Your task to perform on an android device: stop showing notifications on the lock screen Image 0: 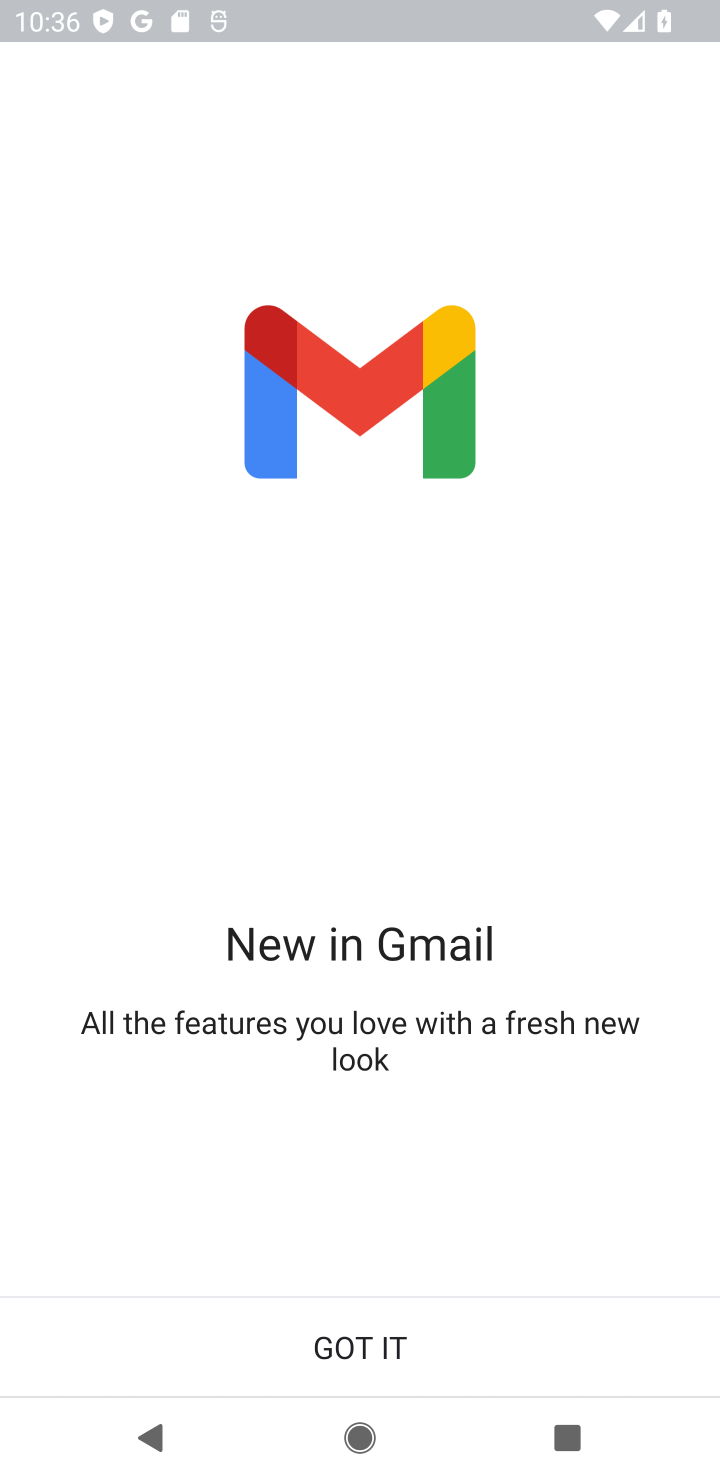
Step 0: press home button
Your task to perform on an android device: stop showing notifications on the lock screen Image 1: 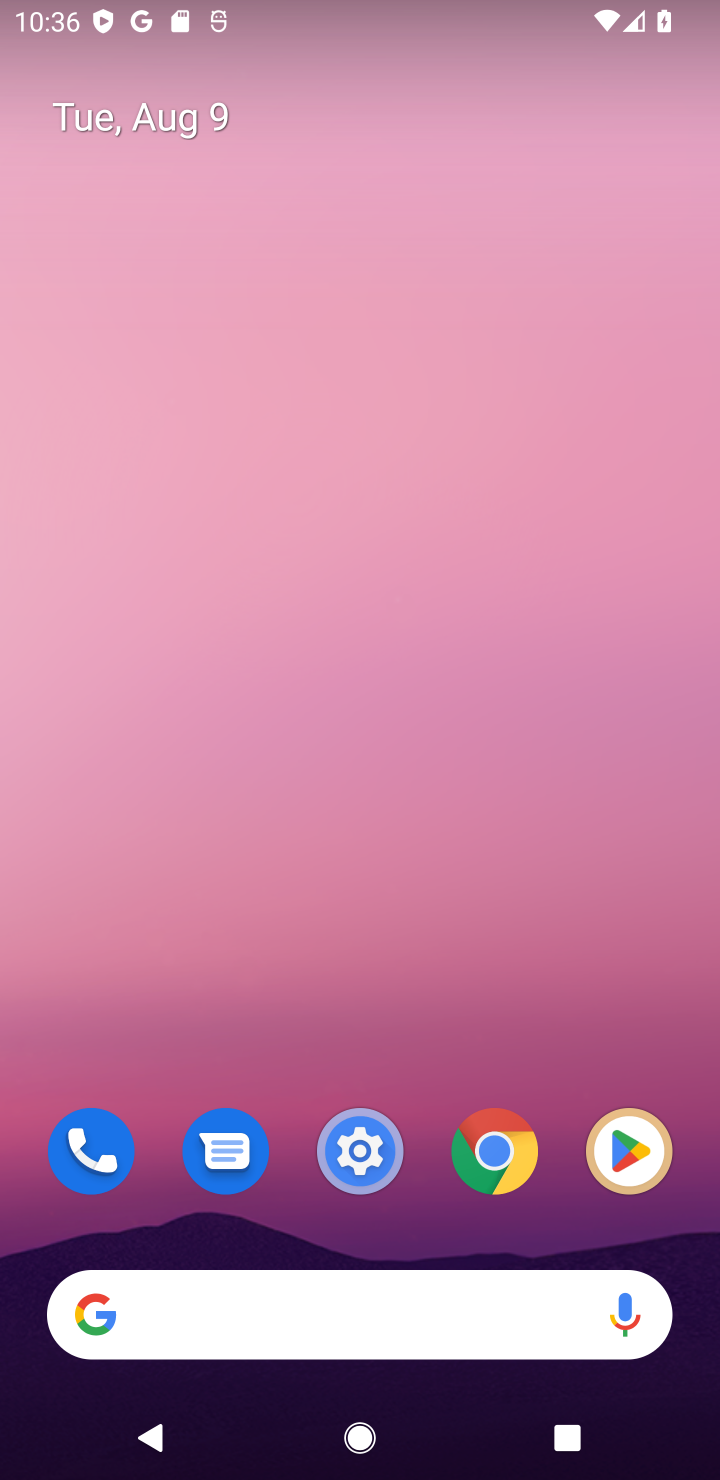
Step 1: click (363, 1162)
Your task to perform on an android device: stop showing notifications on the lock screen Image 2: 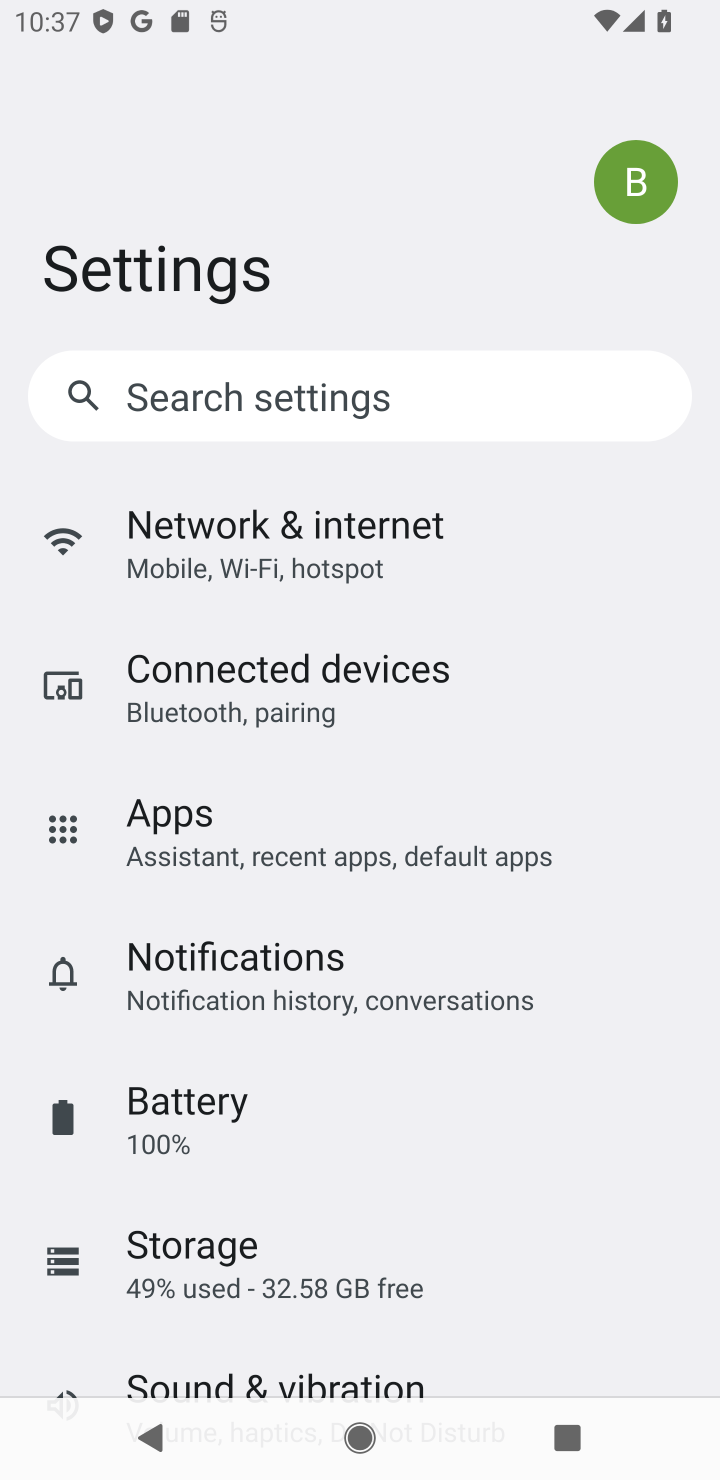
Step 2: click (368, 1002)
Your task to perform on an android device: stop showing notifications on the lock screen Image 3: 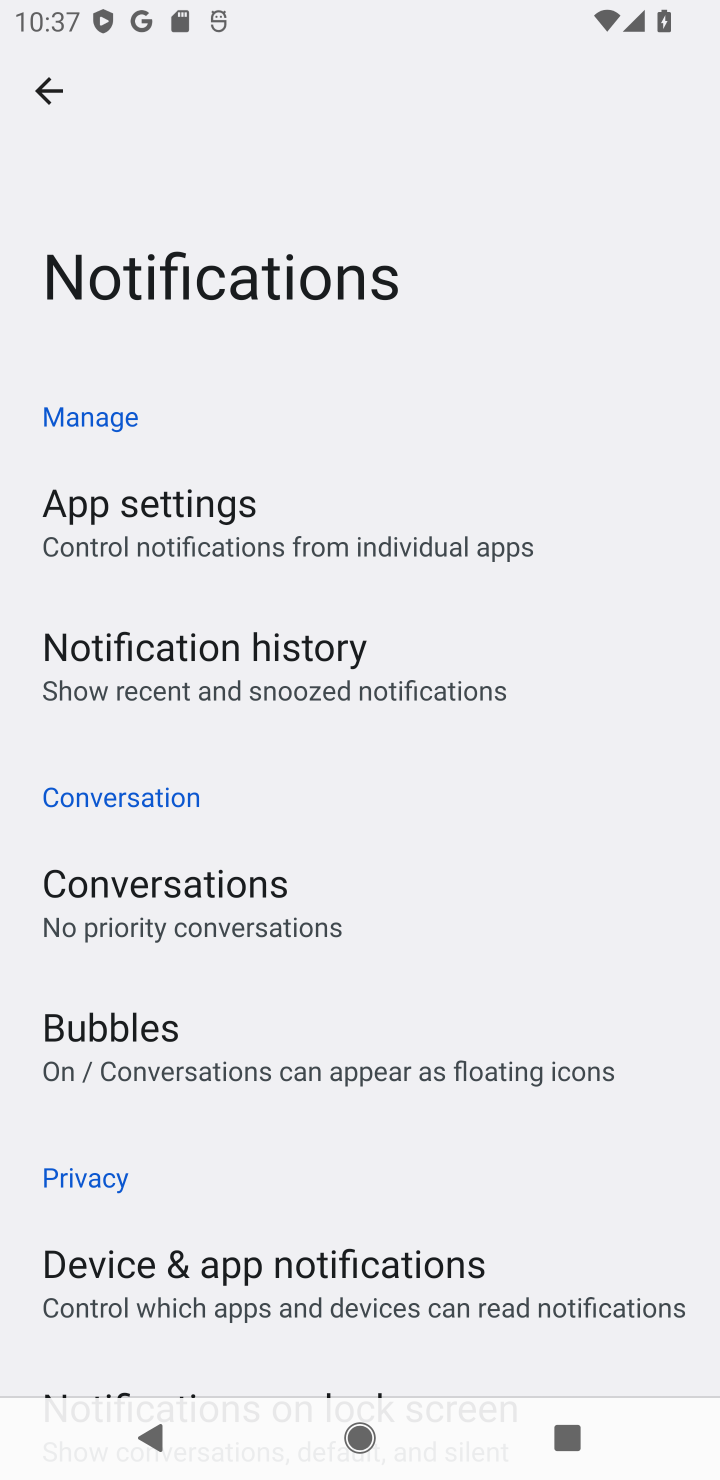
Step 3: drag from (498, 1228) to (404, 565)
Your task to perform on an android device: stop showing notifications on the lock screen Image 4: 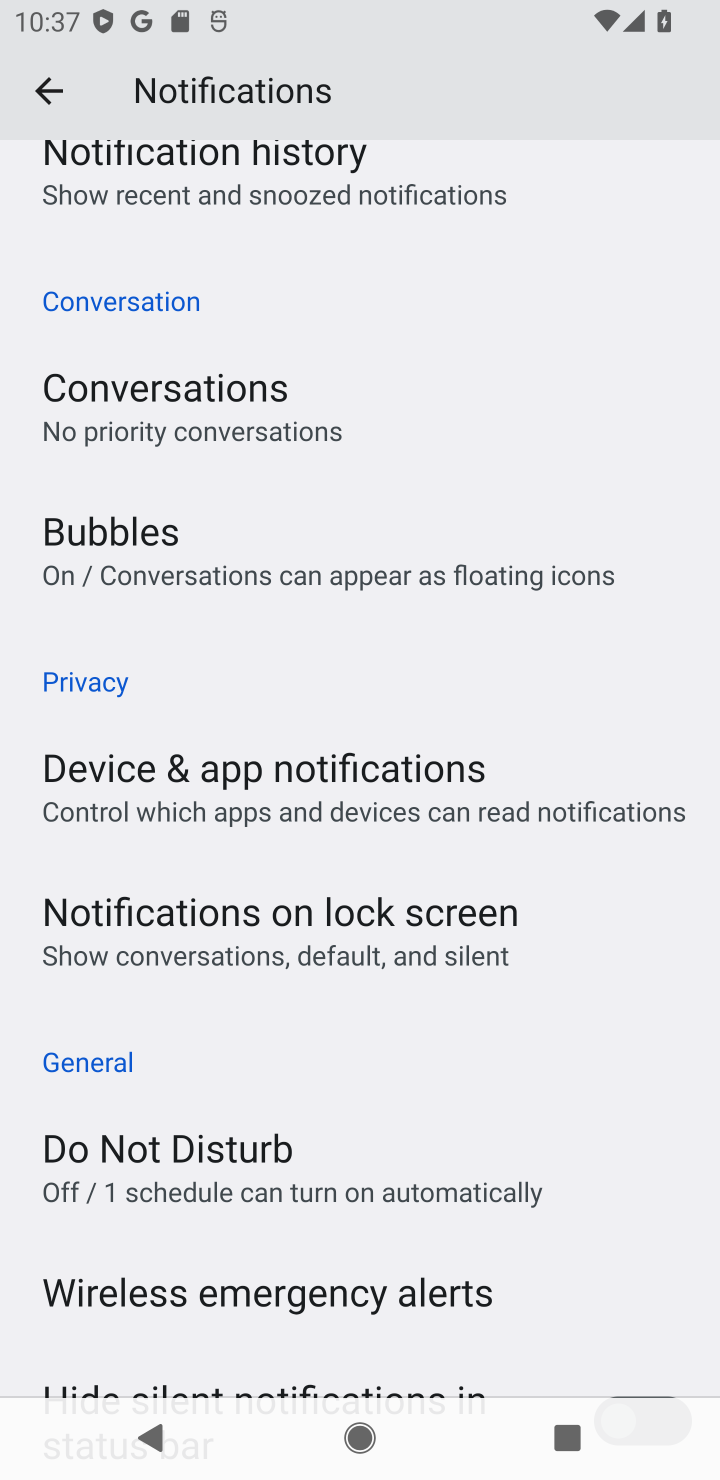
Step 4: drag from (562, 1223) to (476, 853)
Your task to perform on an android device: stop showing notifications on the lock screen Image 5: 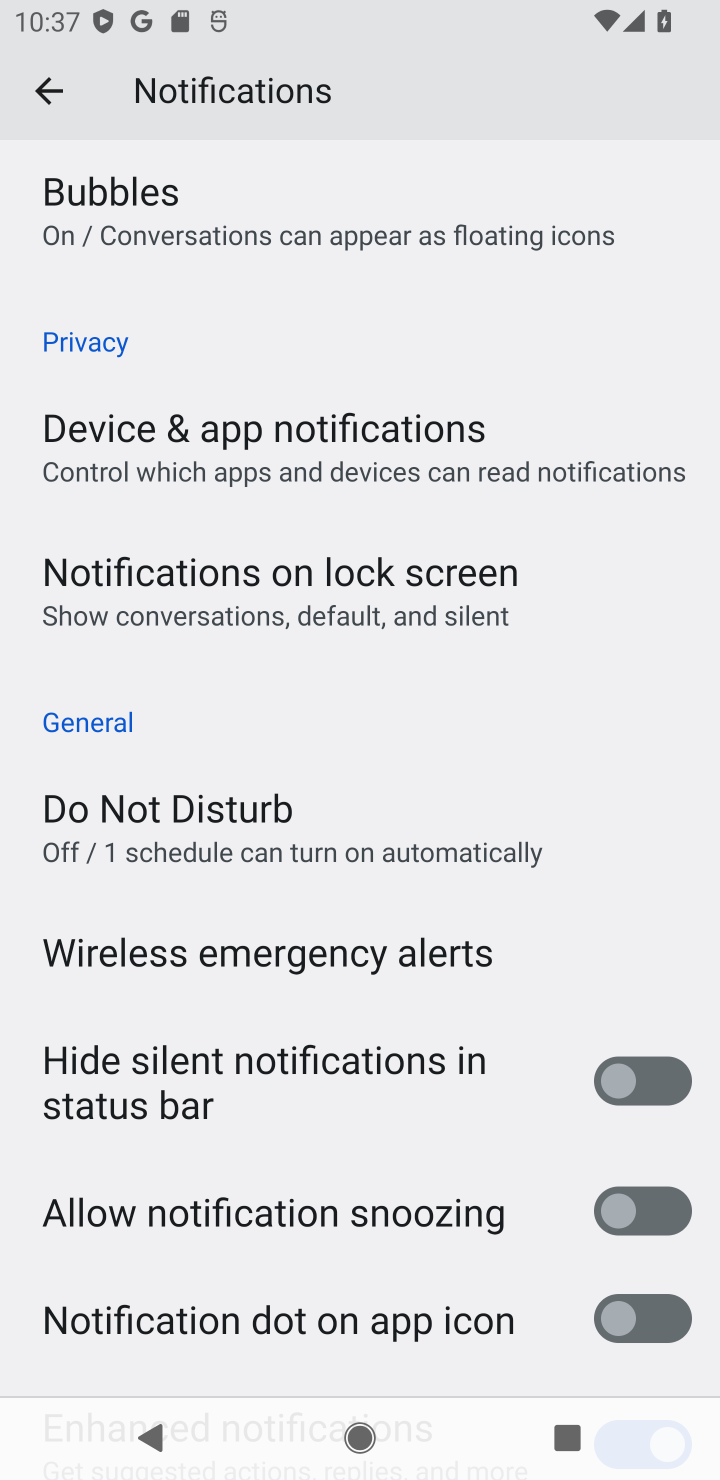
Step 5: click (297, 605)
Your task to perform on an android device: stop showing notifications on the lock screen Image 6: 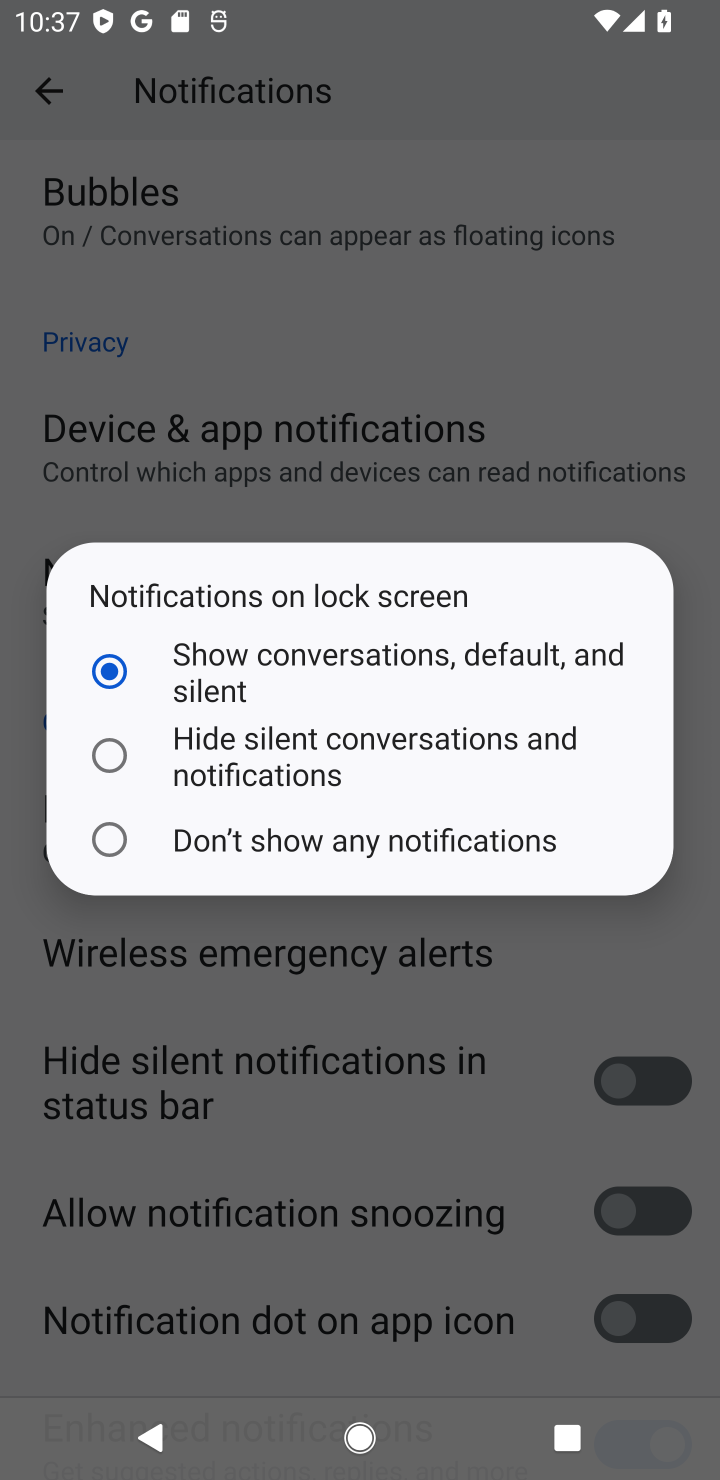
Step 6: click (434, 846)
Your task to perform on an android device: stop showing notifications on the lock screen Image 7: 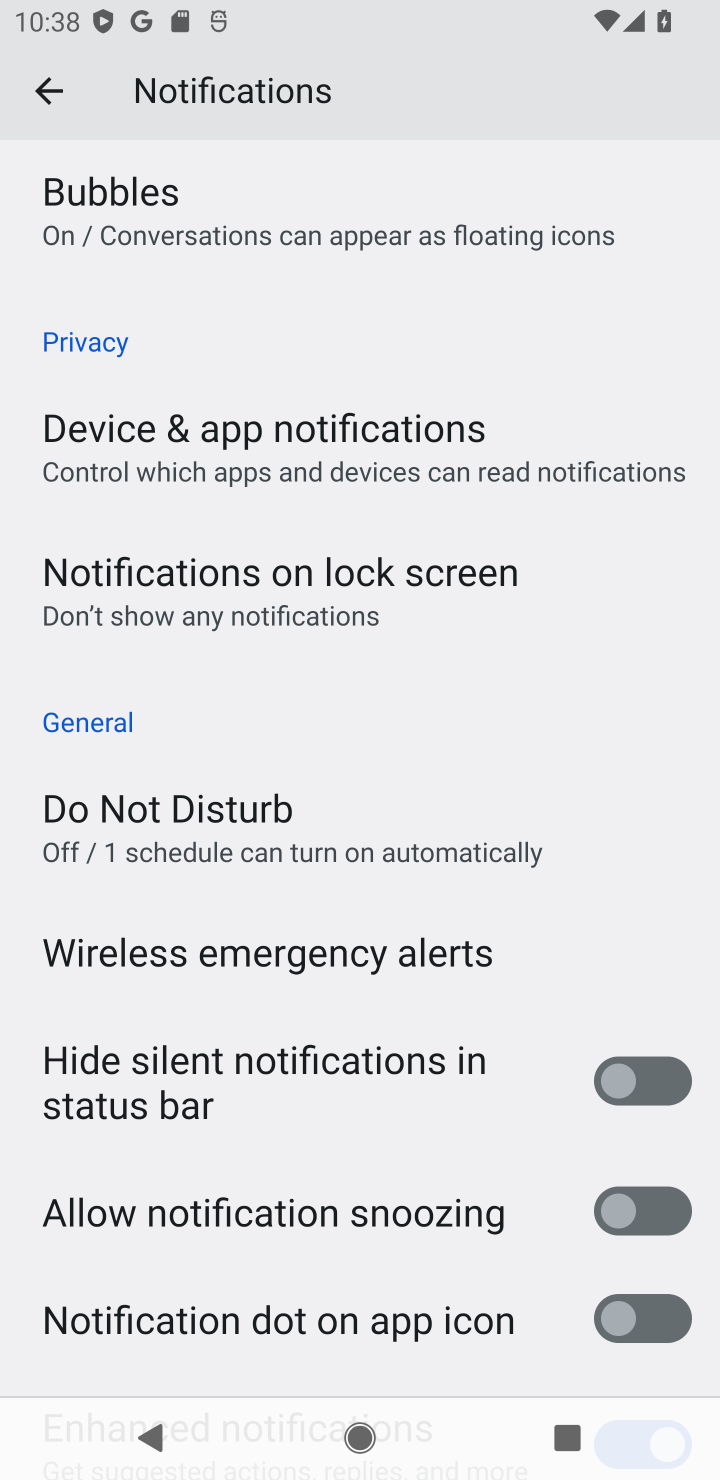
Step 7: drag from (555, 1247) to (500, 448)
Your task to perform on an android device: stop showing notifications on the lock screen Image 8: 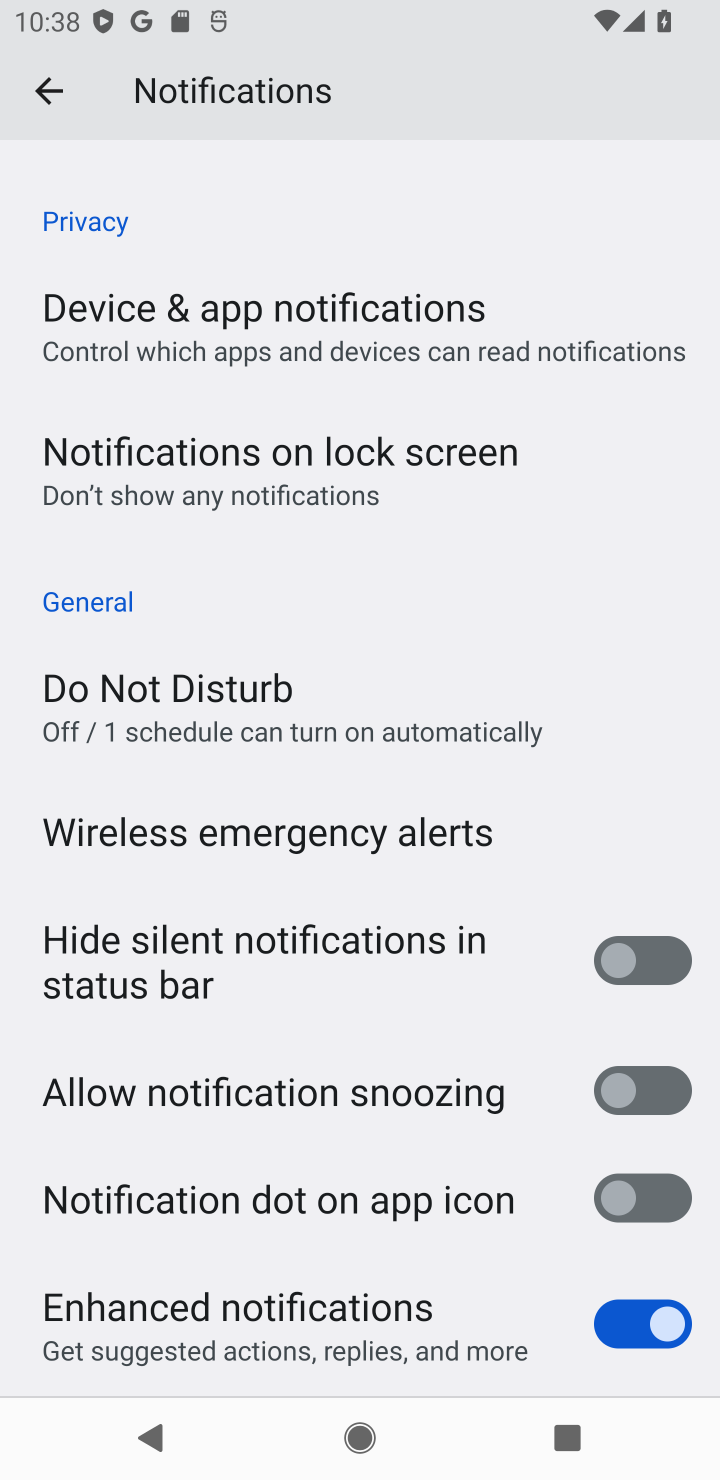
Step 8: click (235, 463)
Your task to perform on an android device: stop showing notifications on the lock screen Image 9: 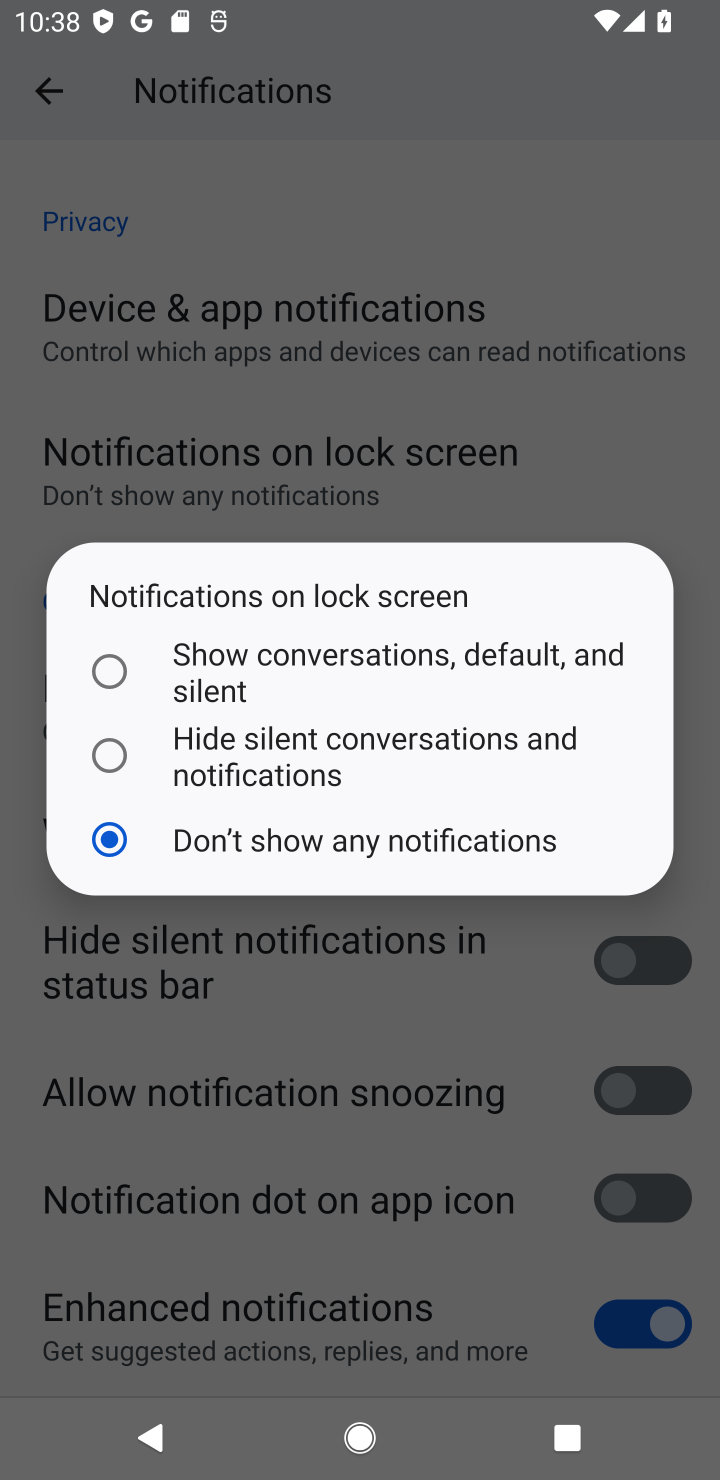
Step 9: task complete